Your task to perform on an android device: see tabs open on other devices in the chrome app Image 0: 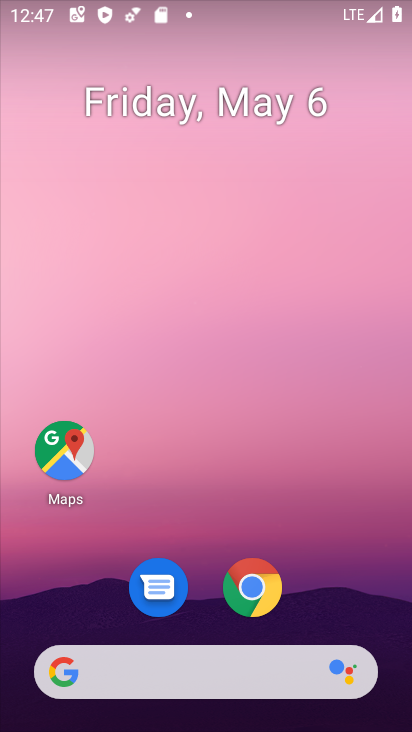
Step 0: click (239, 593)
Your task to perform on an android device: see tabs open on other devices in the chrome app Image 1: 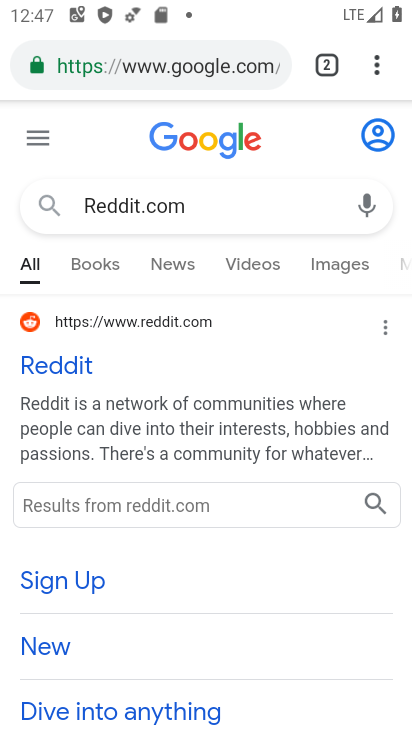
Step 1: click (324, 53)
Your task to perform on an android device: see tabs open on other devices in the chrome app Image 2: 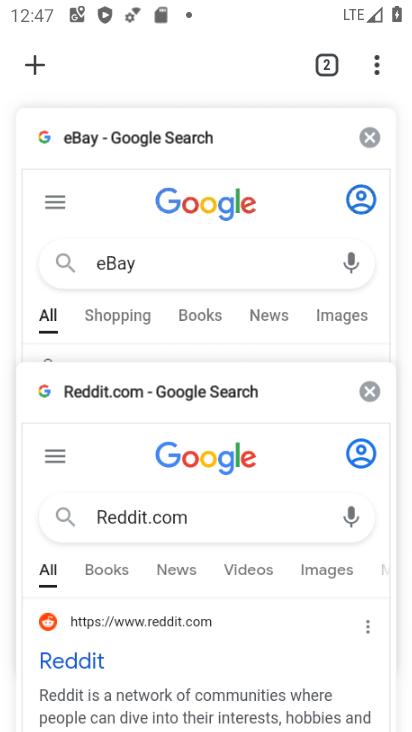
Step 2: task complete